Your task to perform on an android device: Open Yahoo.com Image 0: 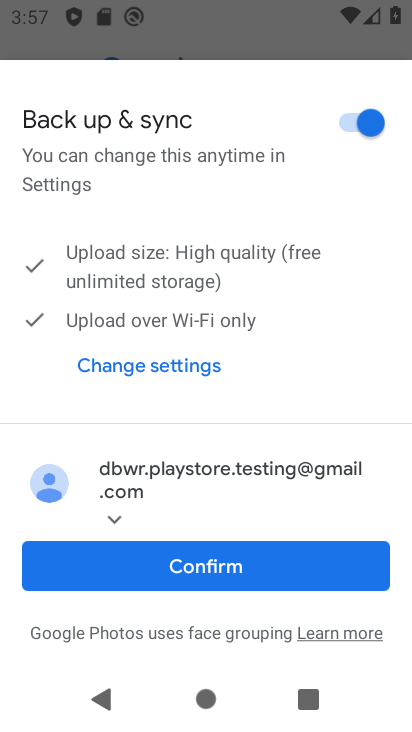
Step 0: press home button
Your task to perform on an android device: Open Yahoo.com Image 1: 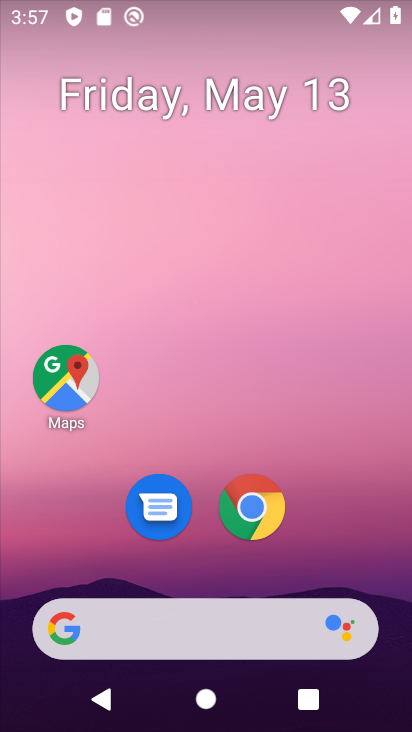
Step 1: click (267, 502)
Your task to perform on an android device: Open Yahoo.com Image 2: 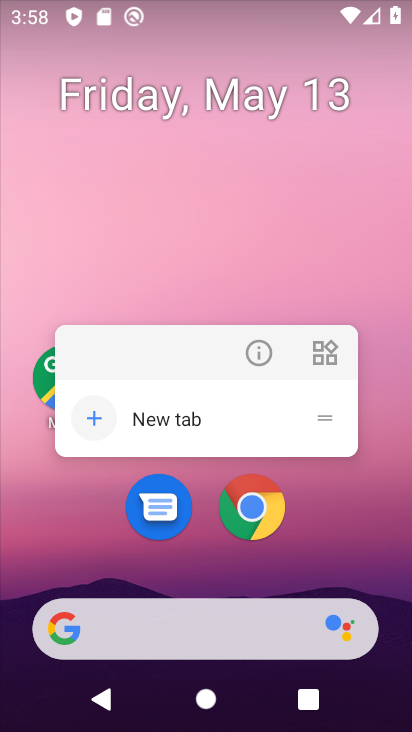
Step 2: click (262, 522)
Your task to perform on an android device: Open Yahoo.com Image 3: 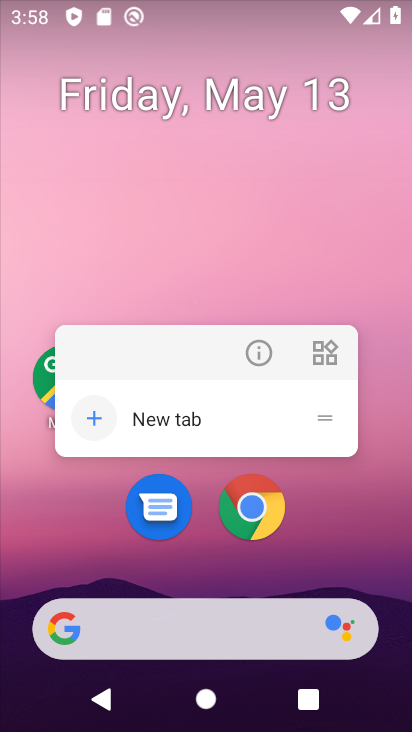
Step 3: click (263, 515)
Your task to perform on an android device: Open Yahoo.com Image 4: 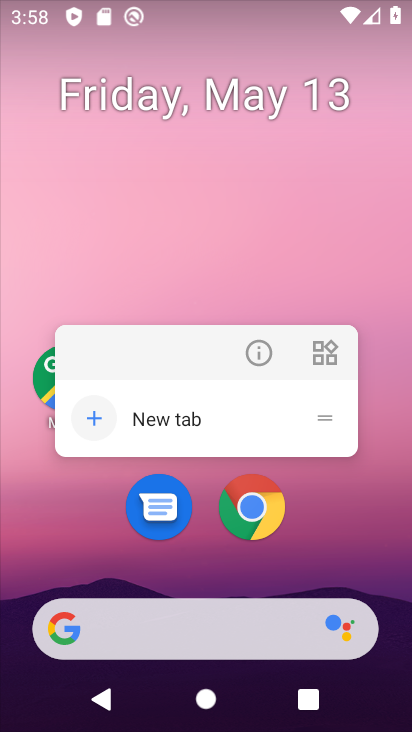
Step 4: click (258, 508)
Your task to perform on an android device: Open Yahoo.com Image 5: 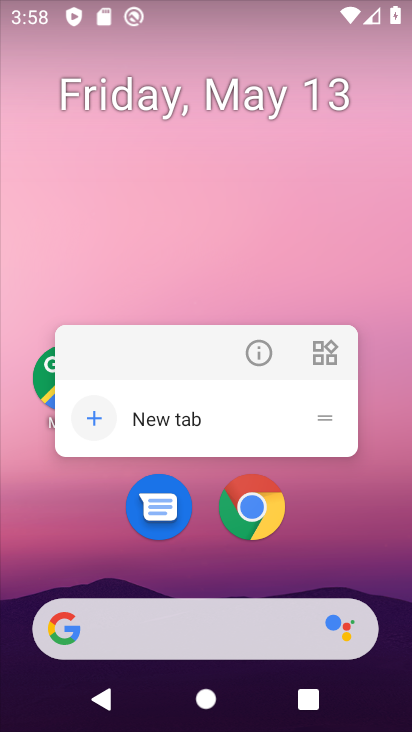
Step 5: click (254, 513)
Your task to perform on an android device: Open Yahoo.com Image 6: 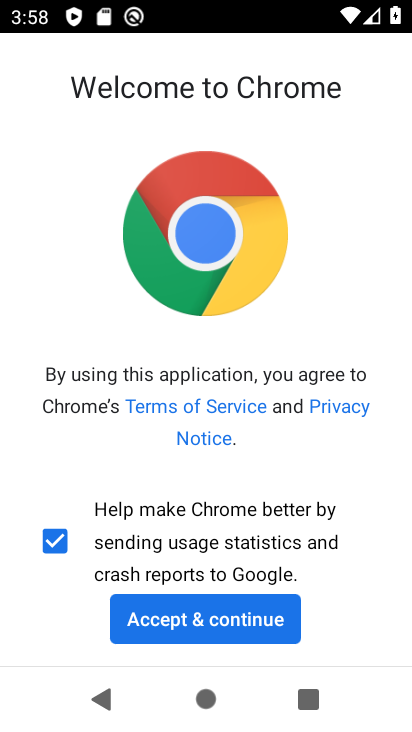
Step 6: click (244, 605)
Your task to perform on an android device: Open Yahoo.com Image 7: 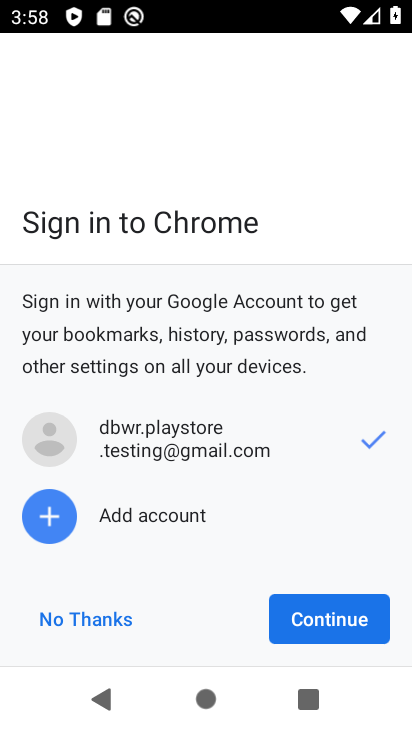
Step 7: click (316, 620)
Your task to perform on an android device: Open Yahoo.com Image 8: 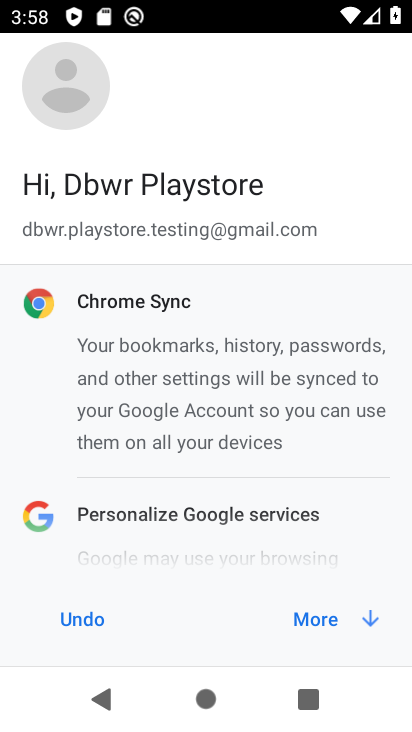
Step 8: click (317, 619)
Your task to perform on an android device: Open Yahoo.com Image 9: 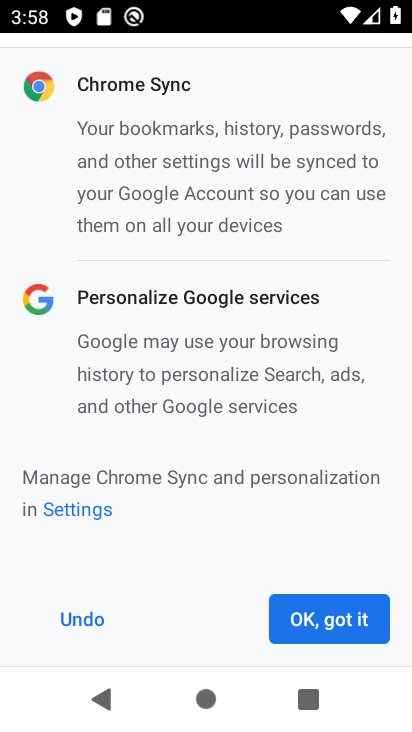
Step 9: click (336, 619)
Your task to perform on an android device: Open Yahoo.com Image 10: 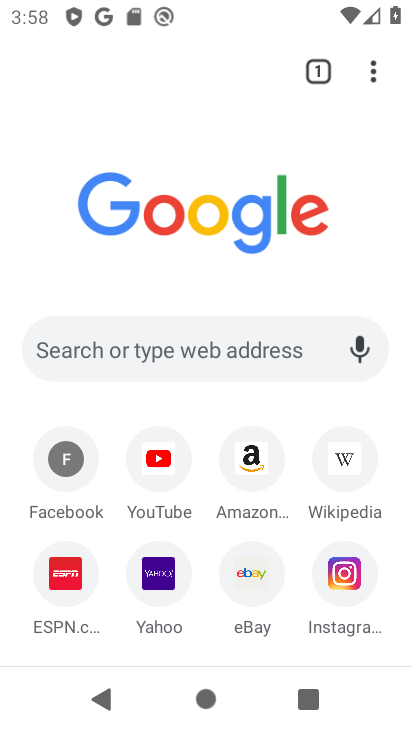
Step 10: click (181, 576)
Your task to perform on an android device: Open Yahoo.com Image 11: 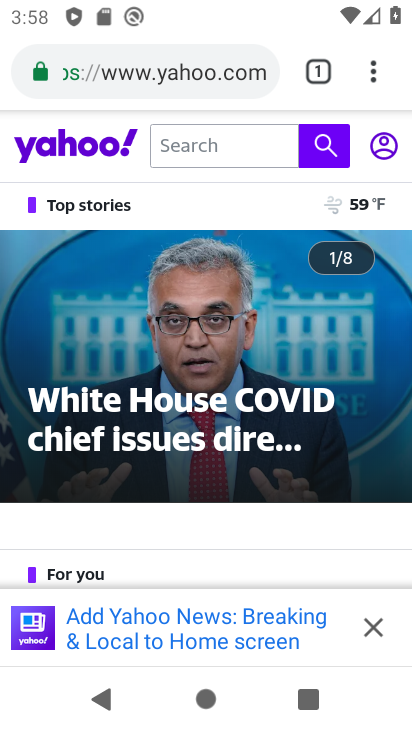
Step 11: task complete